Your task to perform on an android device: Open CNN.com Image 0: 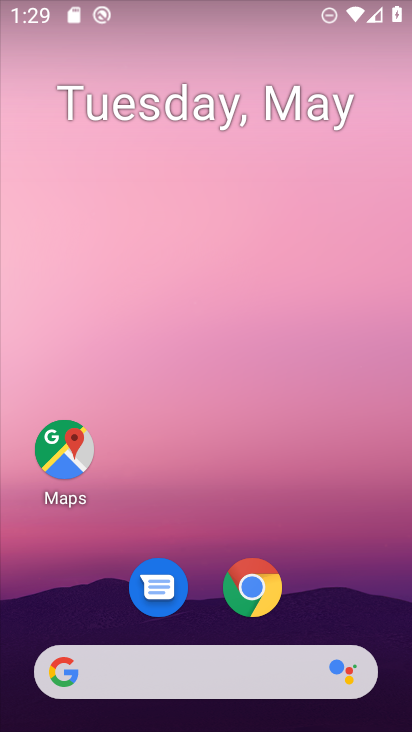
Step 0: click (156, 671)
Your task to perform on an android device: Open CNN.com Image 1: 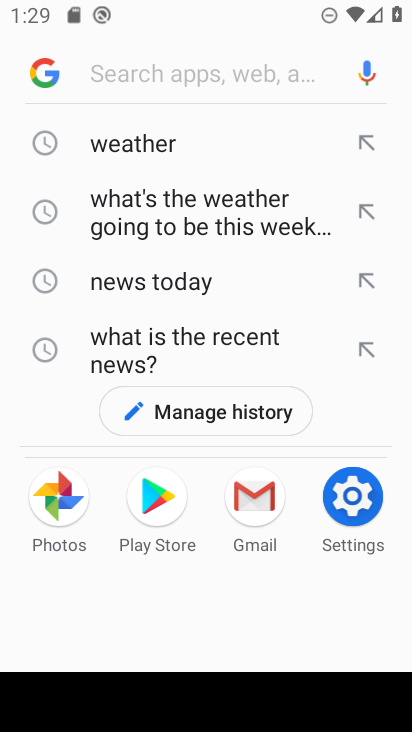
Step 1: type "cnn.com"
Your task to perform on an android device: Open CNN.com Image 2: 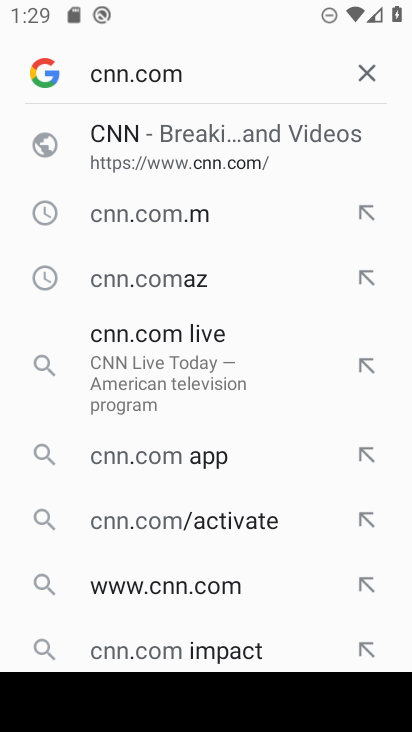
Step 2: click (217, 160)
Your task to perform on an android device: Open CNN.com Image 3: 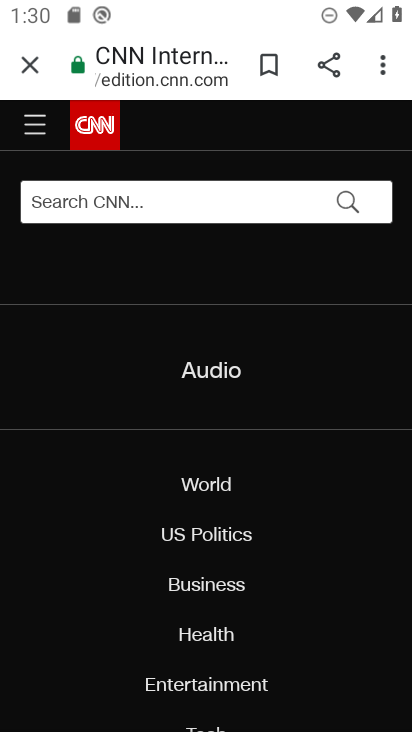
Step 3: task complete